Your task to perform on an android device: Show me recent news Image 0: 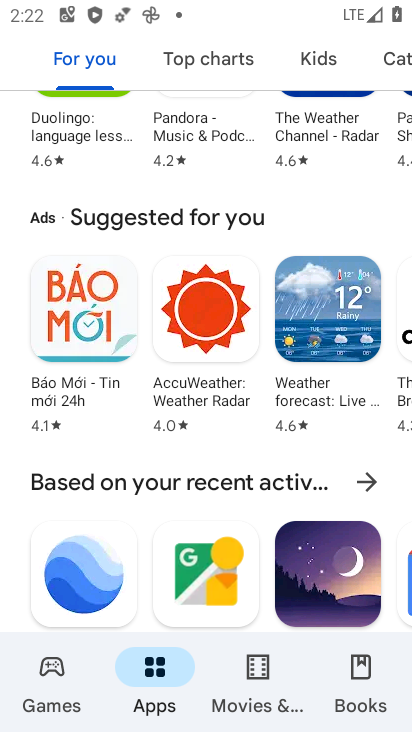
Step 0: press home button
Your task to perform on an android device: Show me recent news Image 1: 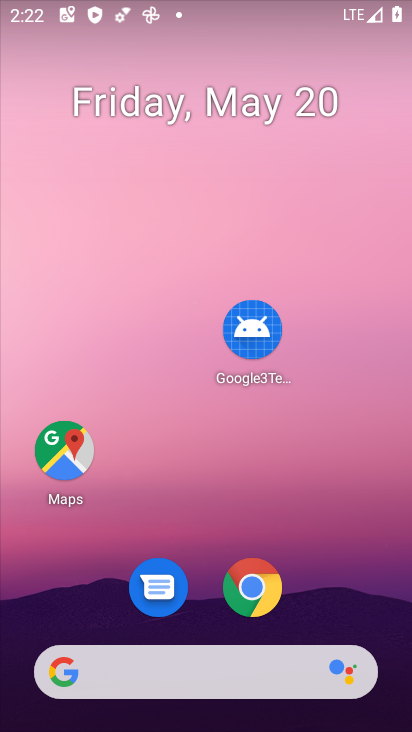
Step 1: task complete